Your task to perform on an android device: Search for pizza restaurants on Maps Image 0: 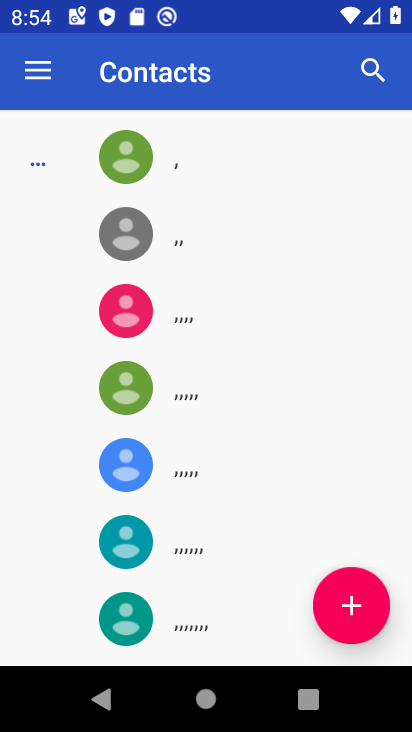
Step 0: drag from (241, 654) to (290, 187)
Your task to perform on an android device: Search for pizza restaurants on Maps Image 1: 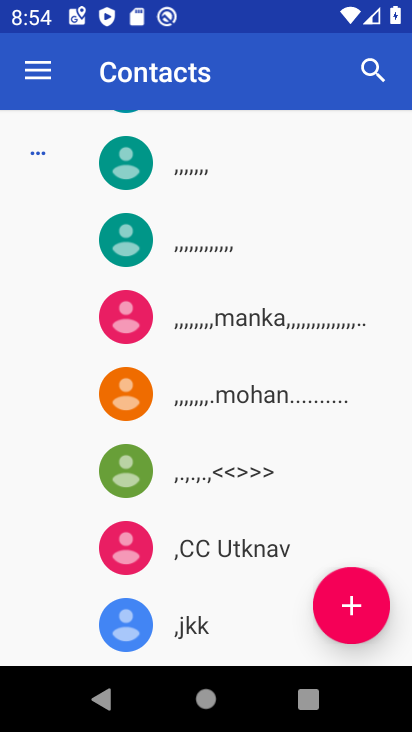
Step 1: press home button
Your task to perform on an android device: Search for pizza restaurants on Maps Image 2: 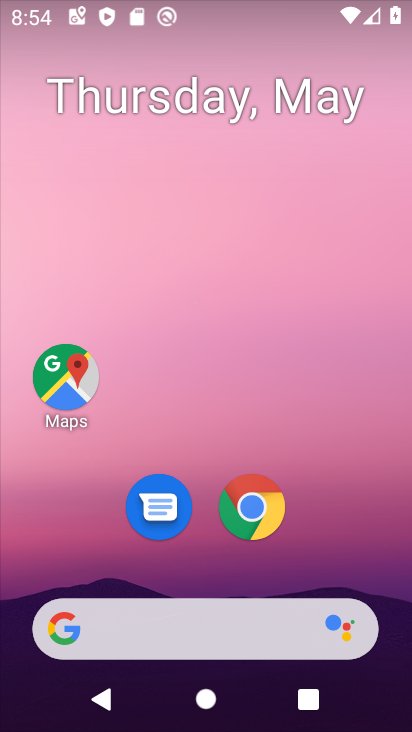
Step 2: click (35, 370)
Your task to perform on an android device: Search for pizza restaurants on Maps Image 3: 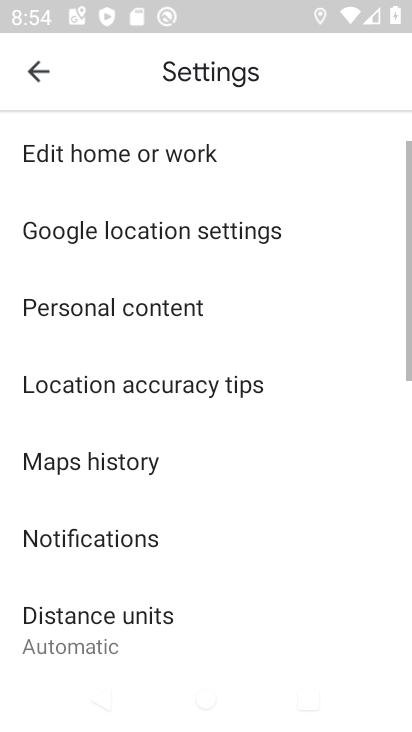
Step 3: click (26, 97)
Your task to perform on an android device: Search for pizza restaurants on Maps Image 4: 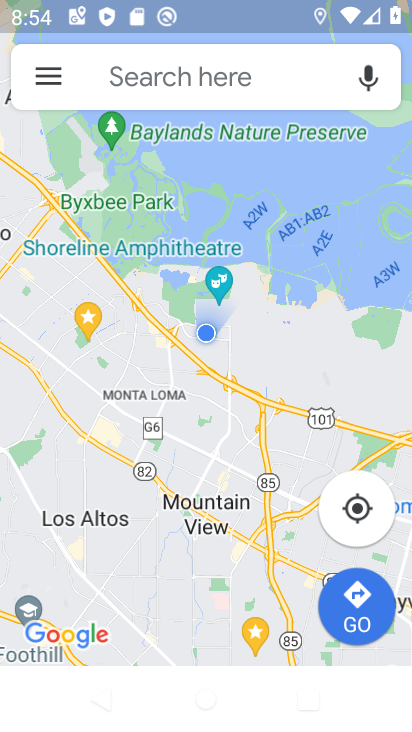
Step 4: click (137, 99)
Your task to perform on an android device: Search for pizza restaurants on Maps Image 5: 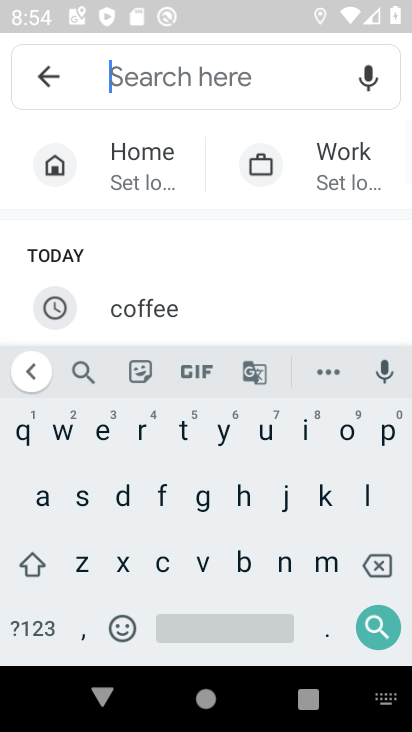
Step 5: click (372, 437)
Your task to perform on an android device: Search for pizza restaurants on Maps Image 6: 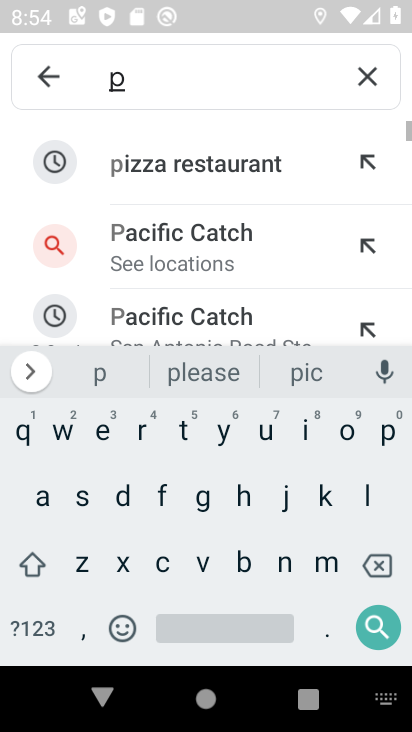
Step 6: click (246, 178)
Your task to perform on an android device: Search for pizza restaurants on Maps Image 7: 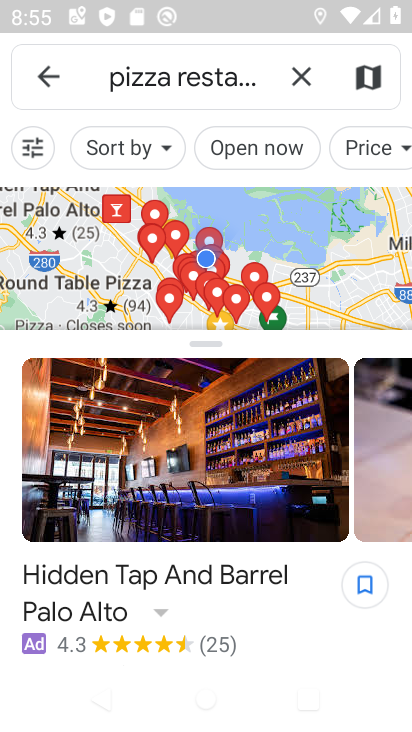
Step 7: click (117, 252)
Your task to perform on an android device: Search for pizza restaurants on Maps Image 8: 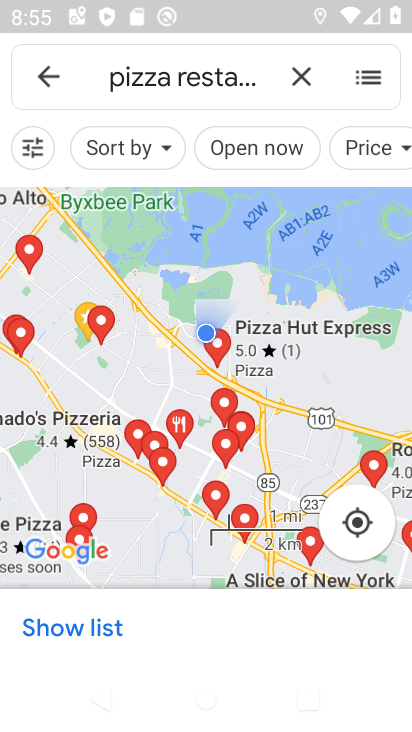
Step 8: task complete